Your task to perform on an android device: turn off wifi Image 0: 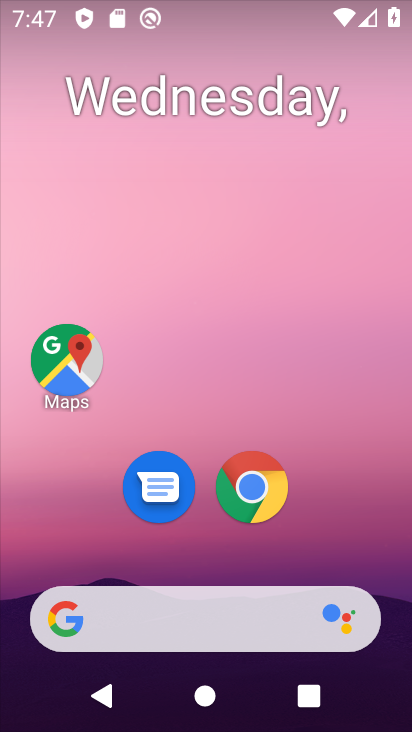
Step 0: drag from (175, 18) to (102, 365)
Your task to perform on an android device: turn off wifi Image 1: 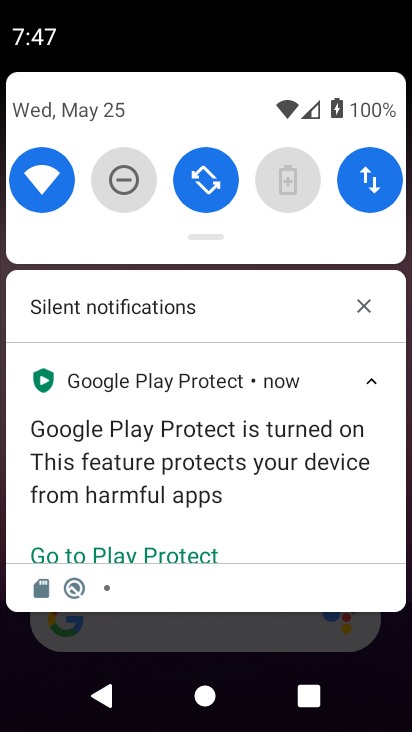
Step 1: click (29, 188)
Your task to perform on an android device: turn off wifi Image 2: 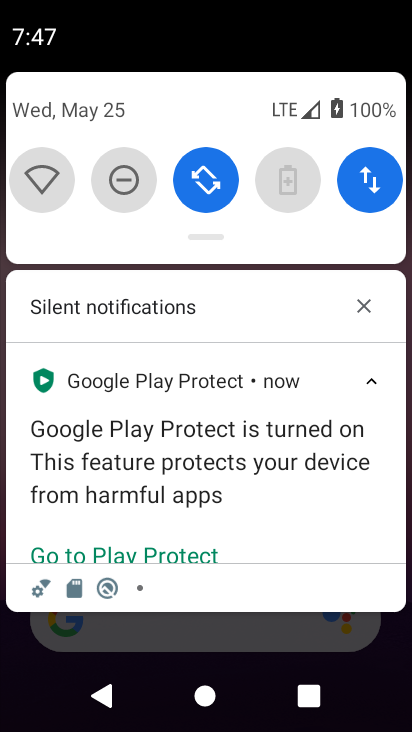
Step 2: task complete